Your task to perform on an android device: open app "Booking.com: Hotels and more" Image 0: 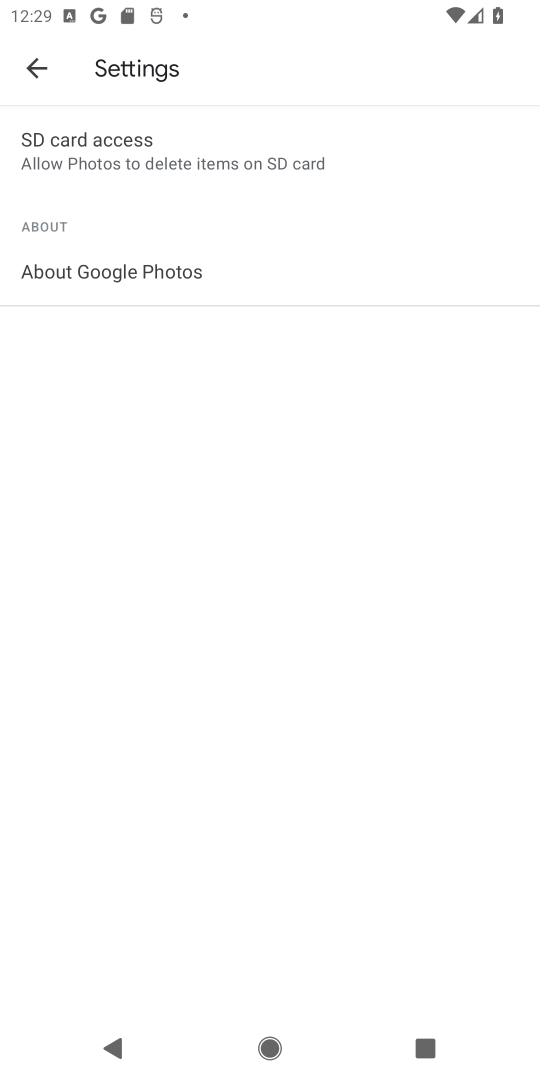
Step 0: press home button
Your task to perform on an android device: open app "Booking.com: Hotels and more" Image 1: 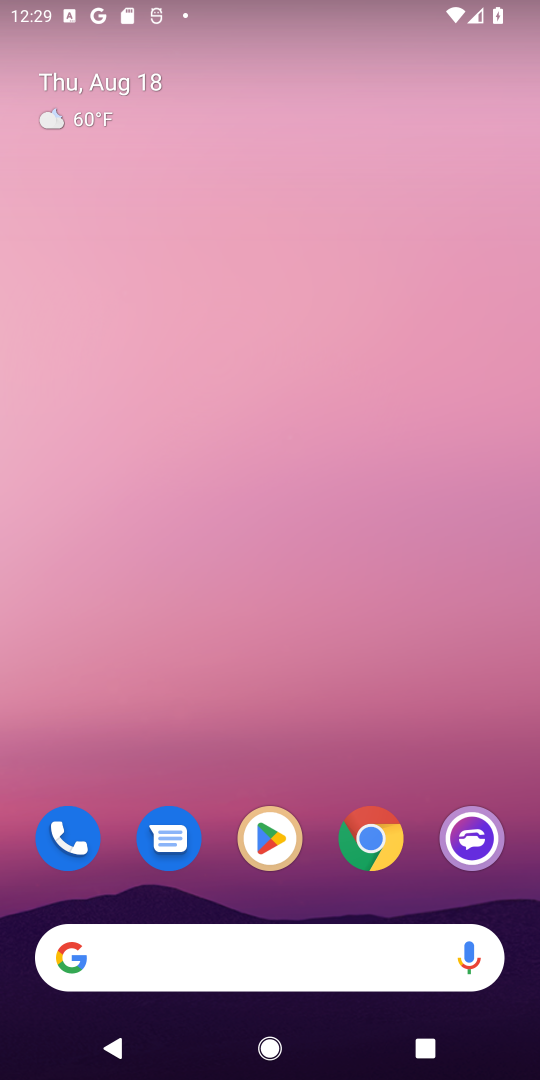
Step 1: click (271, 833)
Your task to perform on an android device: open app "Booking.com: Hotels and more" Image 2: 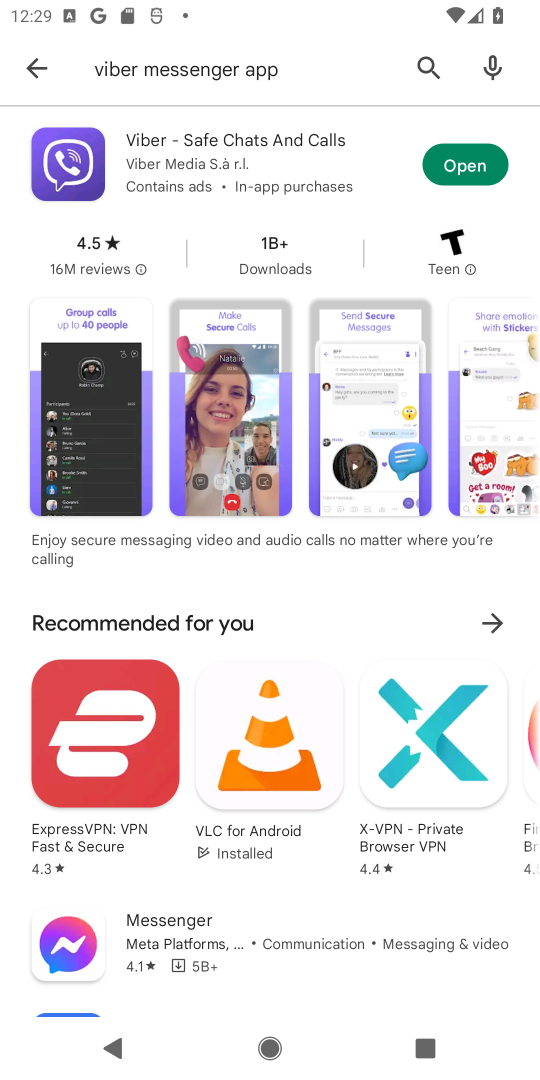
Step 2: click (424, 71)
Your task to perform on an android device: open app "Booking.com: Hotels and more" Image 3: 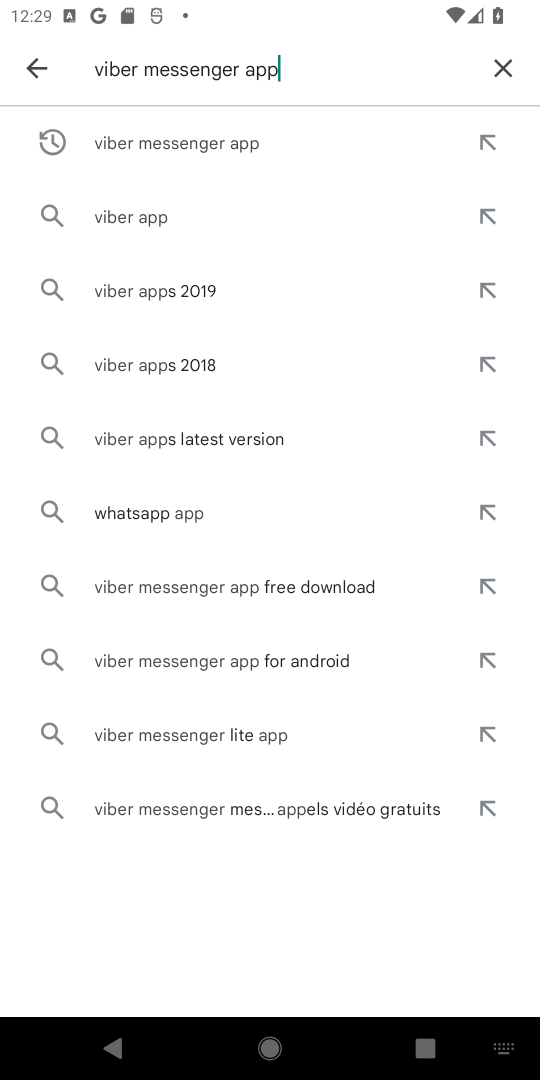
Step 3: click (499, 62)
Your task to perform on an android device: open app "Booking.com: Hotels and more" Image 4: 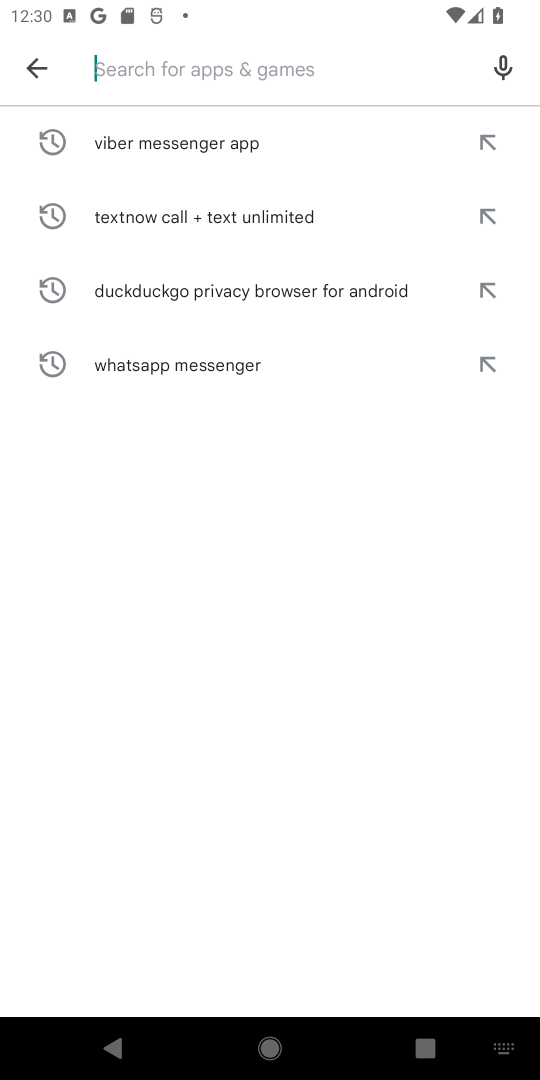
Step 4: type "Booking.com: Hotels and more"
Your task to perform on an android device: open app "Booking.com: Hotels and more" Image 5: 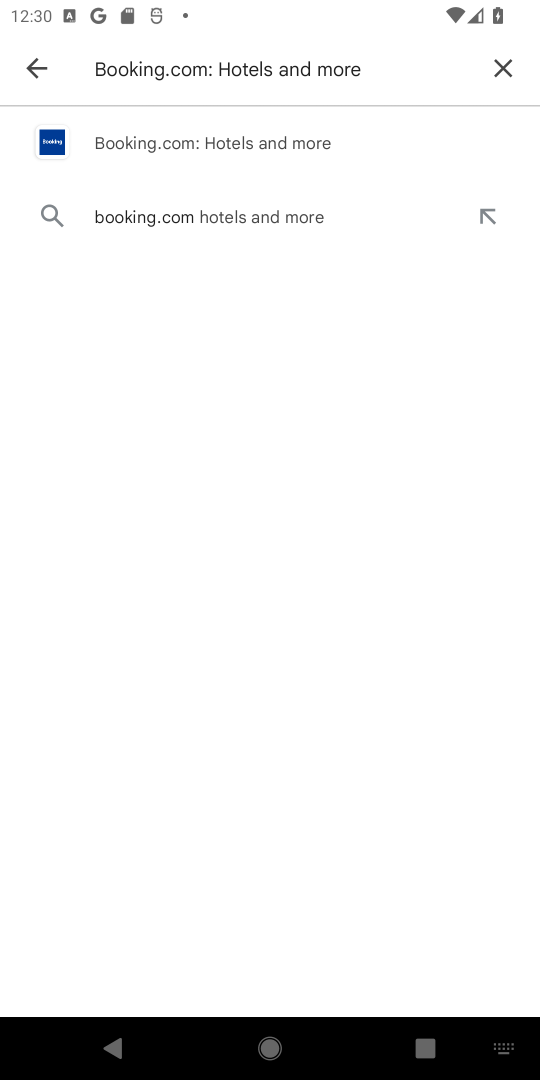
Step 5: click (238, 137)
Your task to perform on an android device: open app "Booking.com: Hotels and more" Image 6: 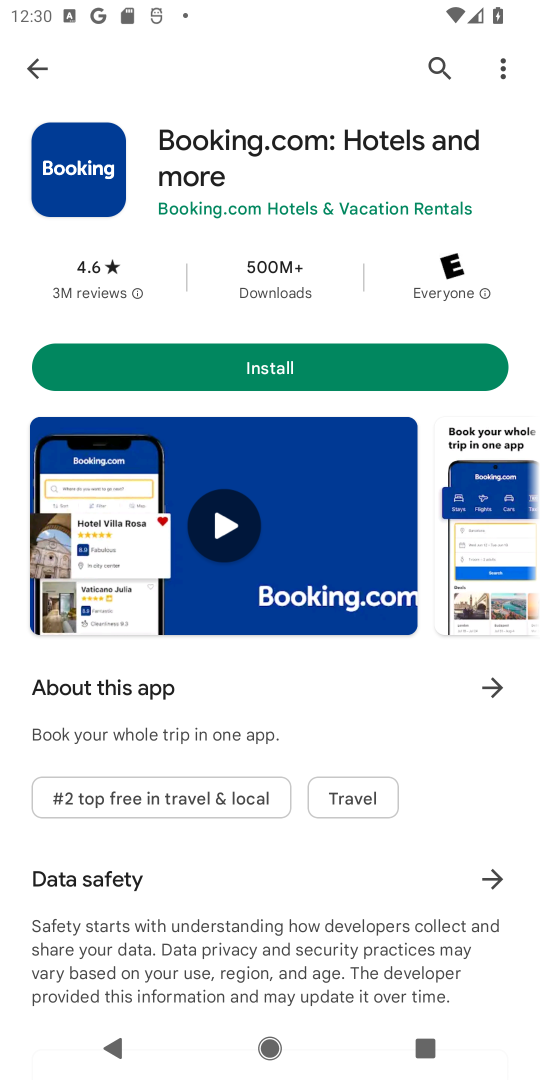
Step 6: task complete